Your task to perform on an android device: turn off notifications in google photos Image 0: 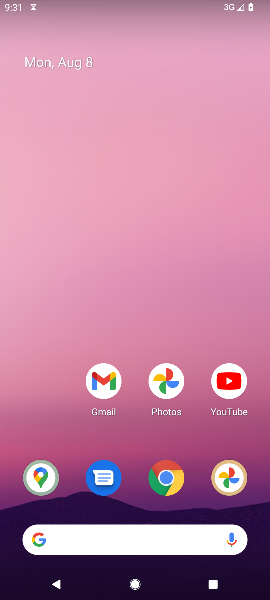
Step 0: click (165, 379)
Your task to perform on an android device: turn off notifications in google photos Image 1: 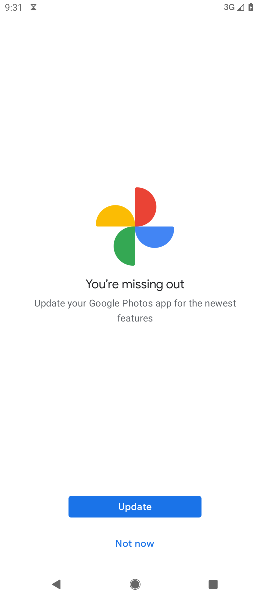
Step 1: click (147, 504)
Your task to perform on an android device: turn off notifications in google photos Image 2: 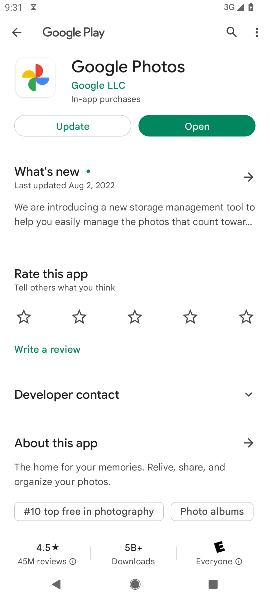
Step 2: click (65, 128)
Your task to perform on an android device: turn off notifications in google photos Image 3: 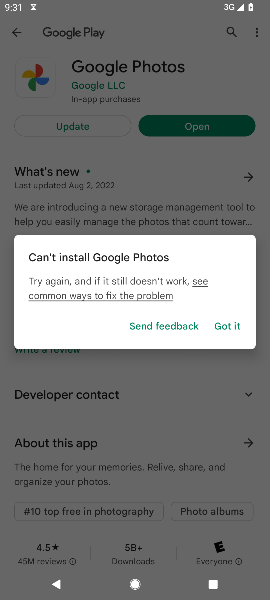
Step 3: click (225, 320)
Your task to perform on an android device: turn off notifications in google photos Image 4: 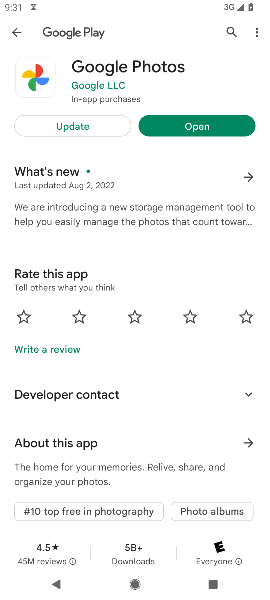
Step 4: task complete